Your task to perform on an android device: turn on location history Image 0: 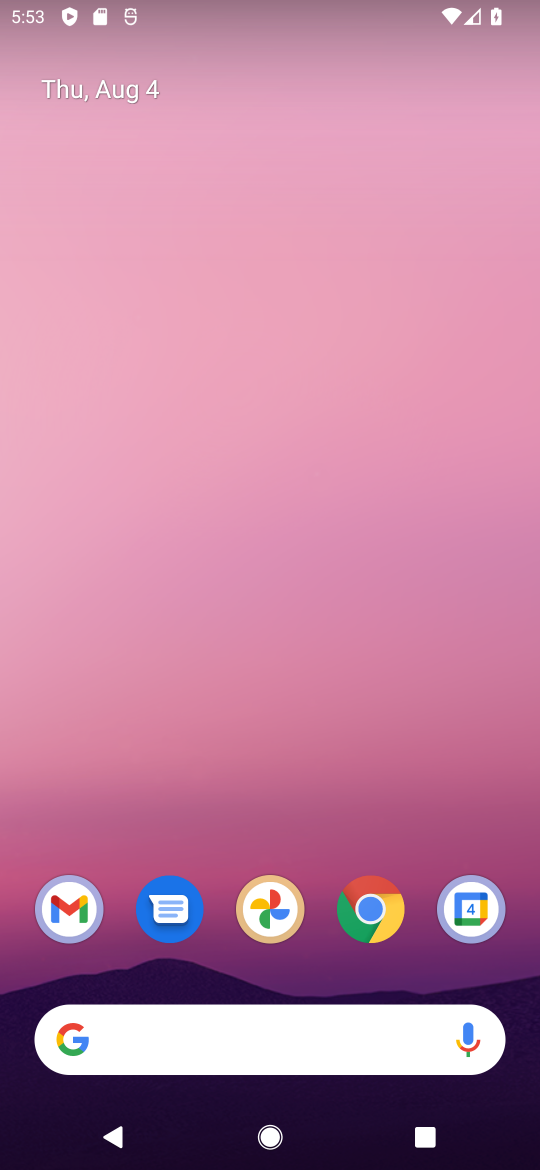
Step 0: drag from (215, 824) to (421, 92)
Your task to perform on an android device: turn on location history Image 1: 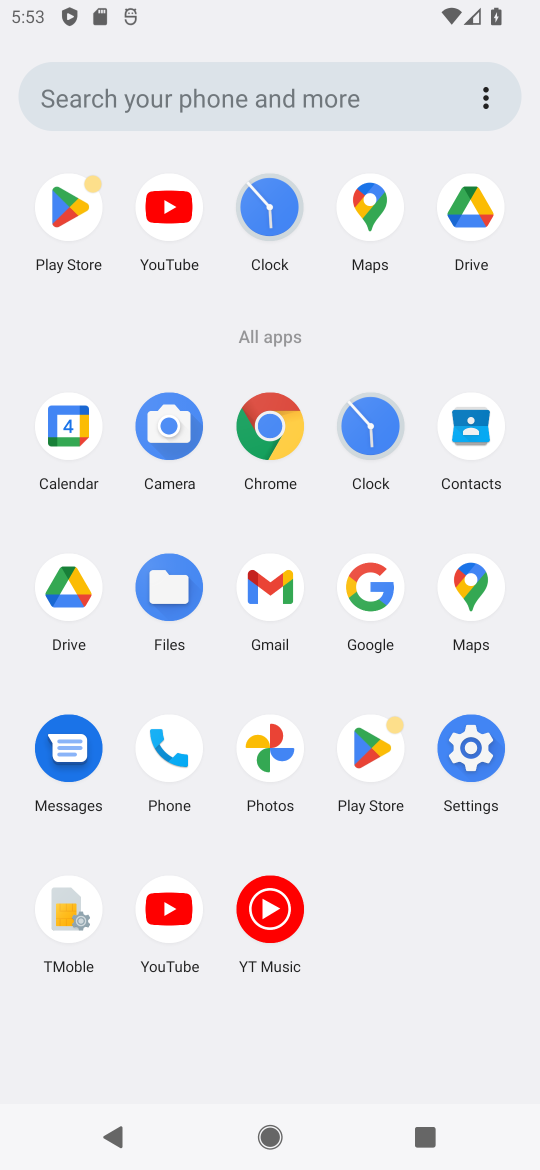
Step 1: click (478, 761)
Your task to perform on an android device: turn on location history Image 2: 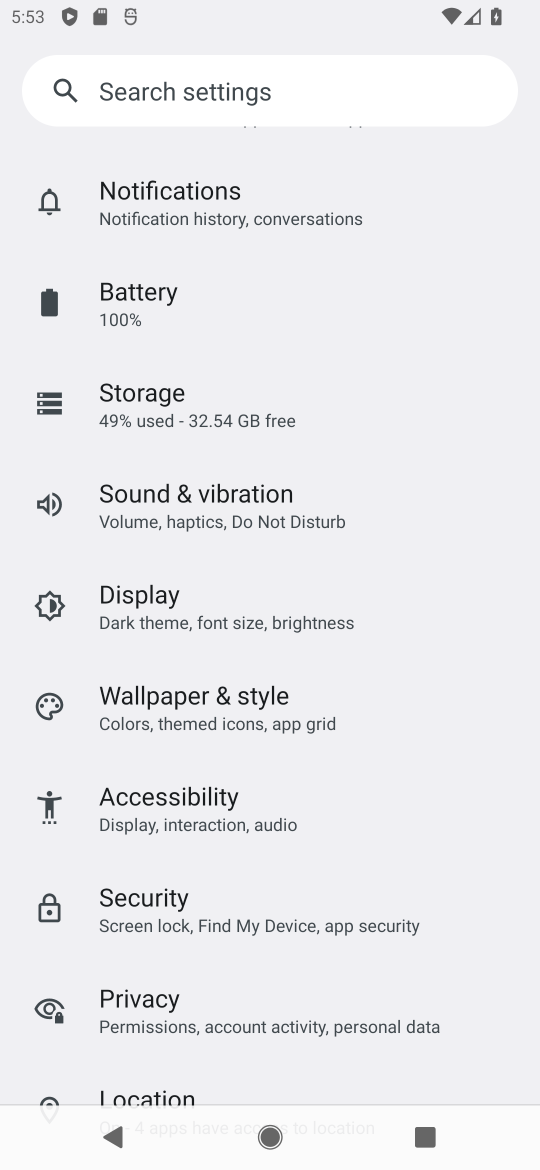
Step 2: drag from (237, 990) to (402, 392)
Your task to perform on an android device: turn on location history Image 3: 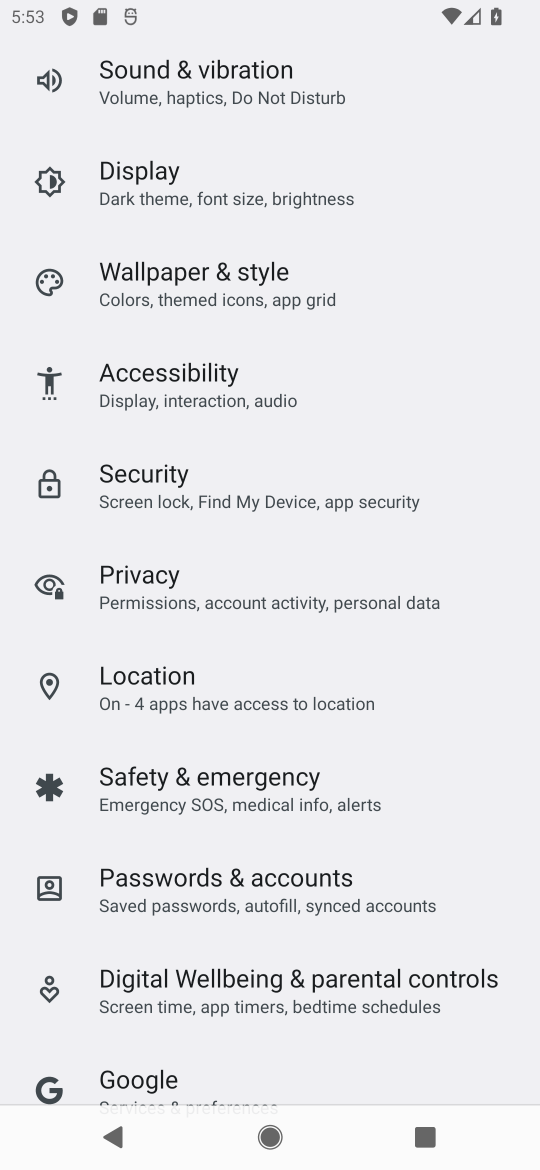
Step 3: click (218, 694)
Your task to perform on an android device: turn on location history Image 4: 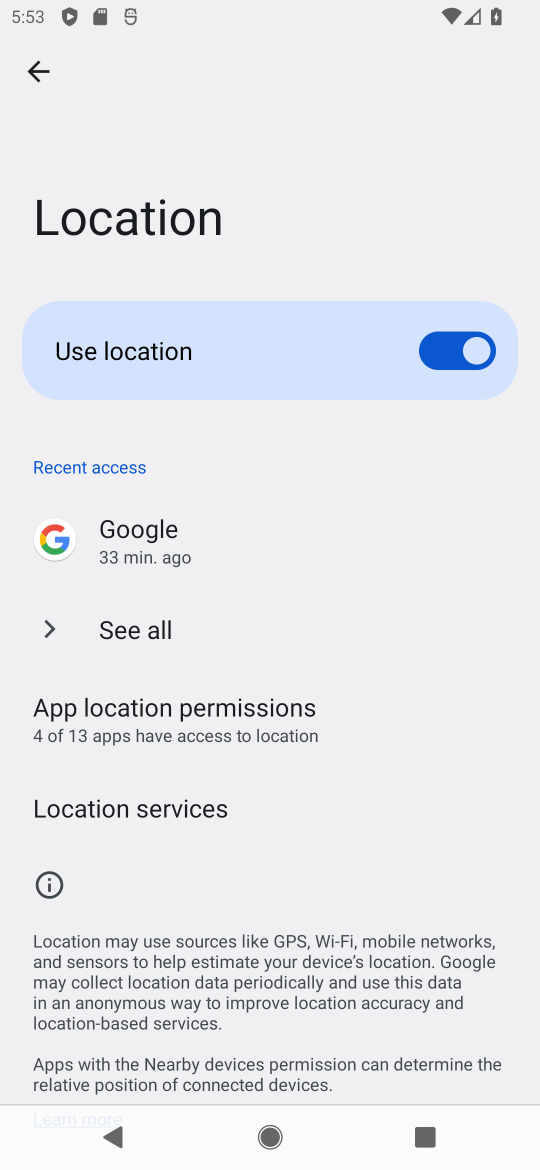
Step 4: task complete